Your task to perform on an android device: toggle show notifications on the lock screen Image 0: 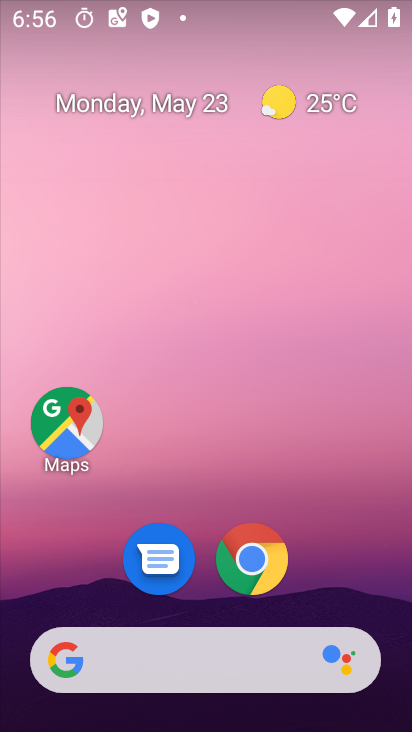
Step 0: drag from (373, 626) to (299, 78)
Your task to perform on an android device: toggle show notifications on the lock screen Image 1: 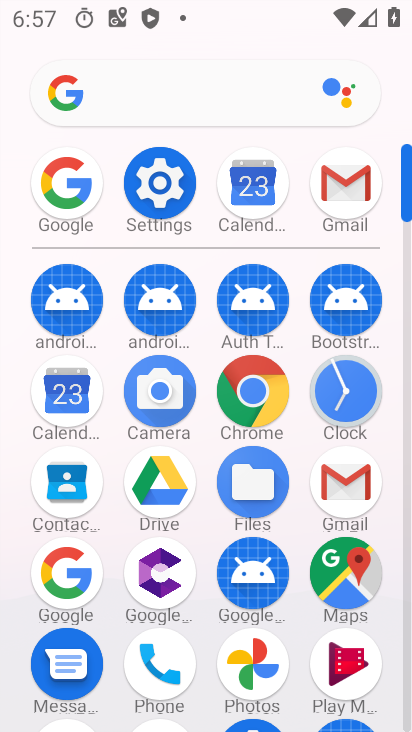
Step 1: click (168, 187)
Your task to perform on an android device: toggle show notifications on the lock screen Image 2: 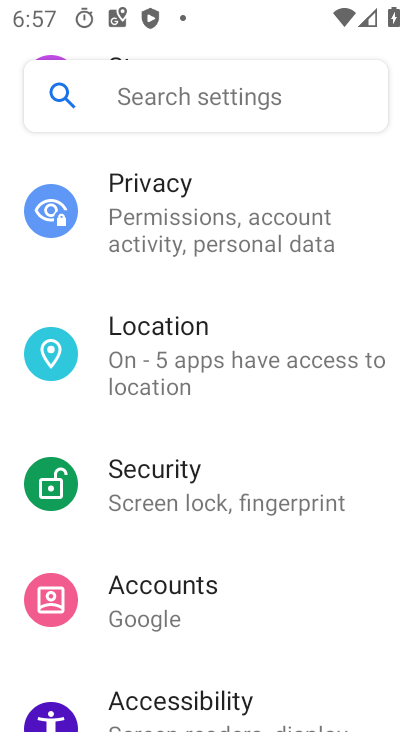
Step 2: drag from (236, 213) to (233, 573)
Your task to perform on an android device: toggle show notifications on the lock screen Image 3: 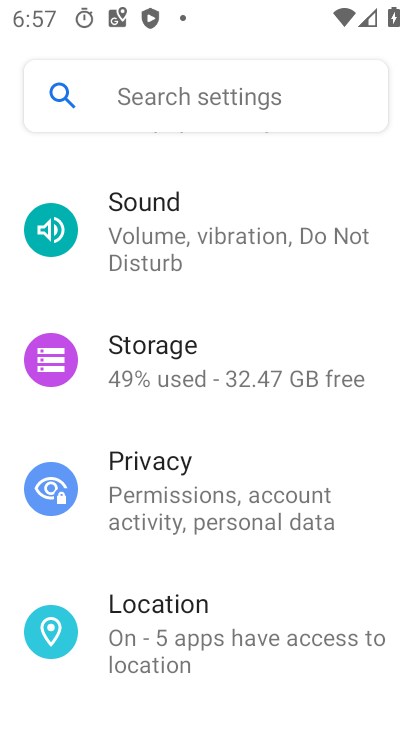
Step 3: drag from (189, 262) to (197, 633)
Your task to perform on an android device: toggle show notifications on the lock screen Image 4: 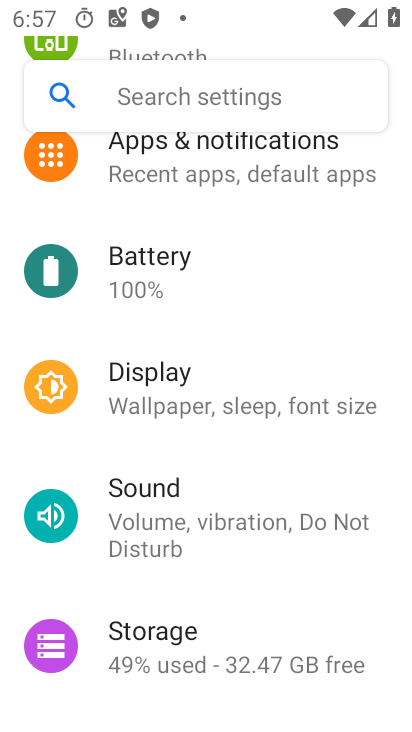
Step 4: click (228, 160)
Your task to perform on an android device: toggle show notifications on the lock screen Image 5: 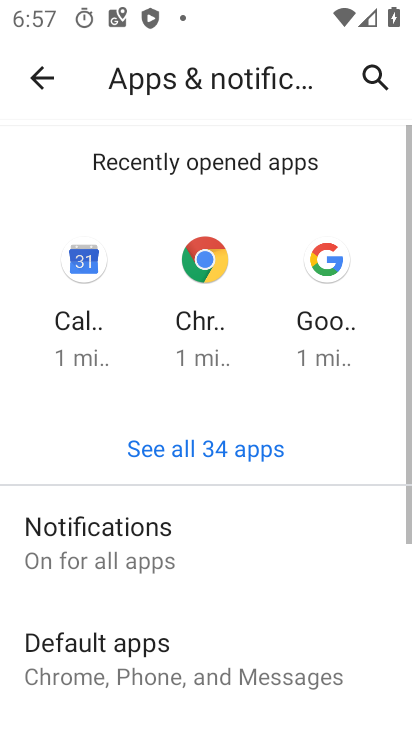
Step 5: click (179, 552)
Your task to perform on an android device: toggle show notifications on the lock screen Image 6: 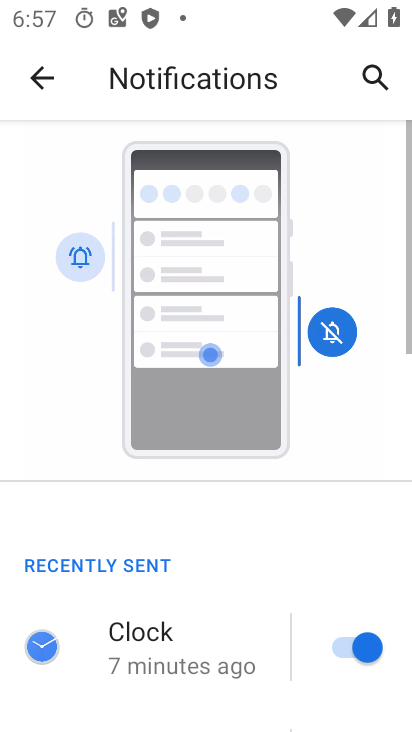
Step 6: drag from (222, 687) to (242, 108)
Your task to perform on an android device: toggle show notifications on the lock screen Image 7: 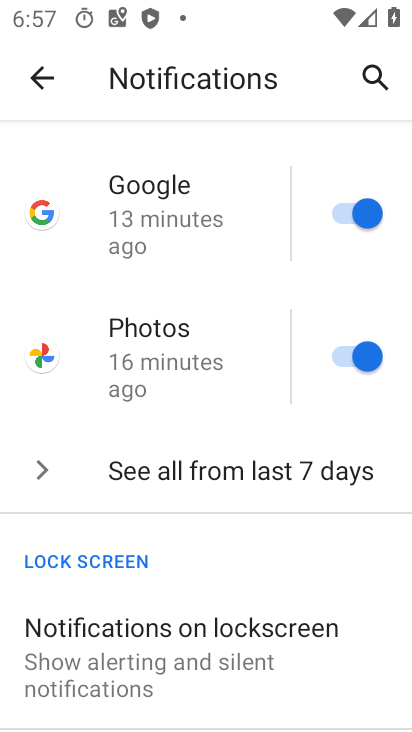
Step 7: click (274, 636)
Your task to perform on an android device: toggle show notifications on the lock screen Image 8: 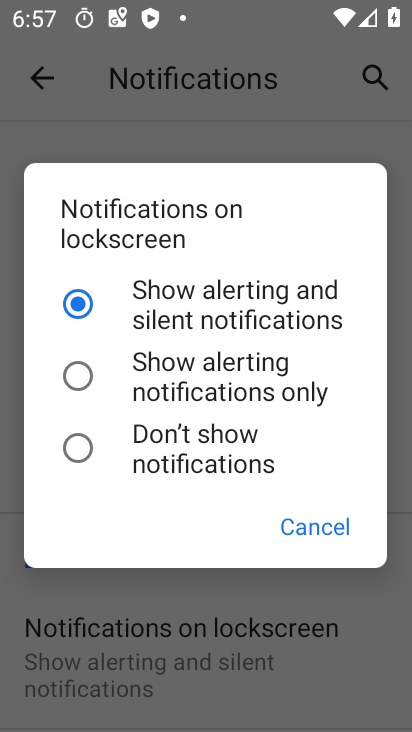
Step 8: click (75, 451)
Your task to perform on an android device: toggle show notifications on the lock screen Image 9: 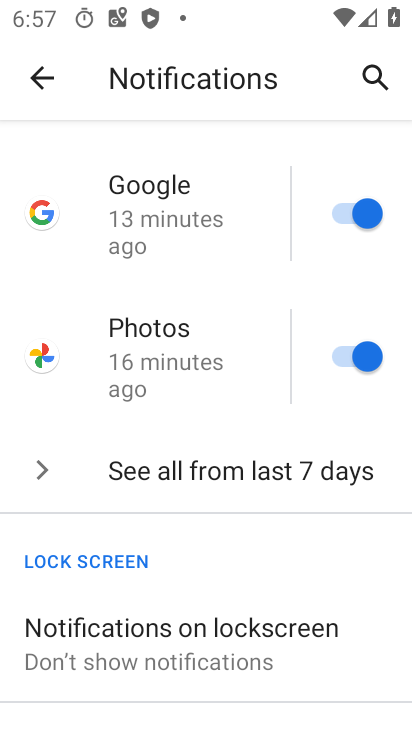
Step 9: task complete